Your task to perform on an android device: Check my gmail inbox Image 0: 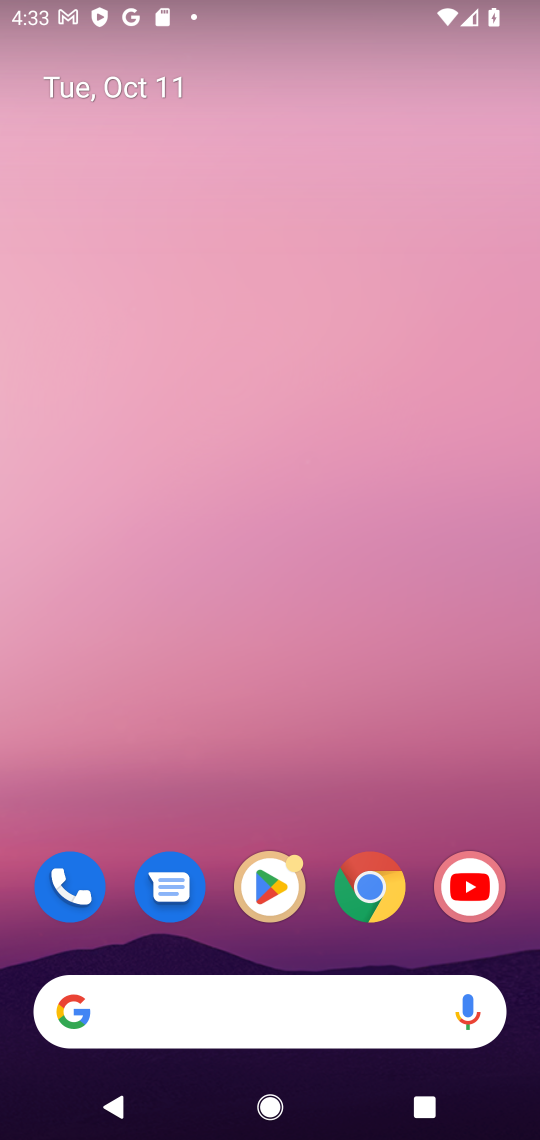
Step 0: drag from (351, 1095) to (351, 496)
Your task to perform on an android device: Check my gmail inbox Image 1: 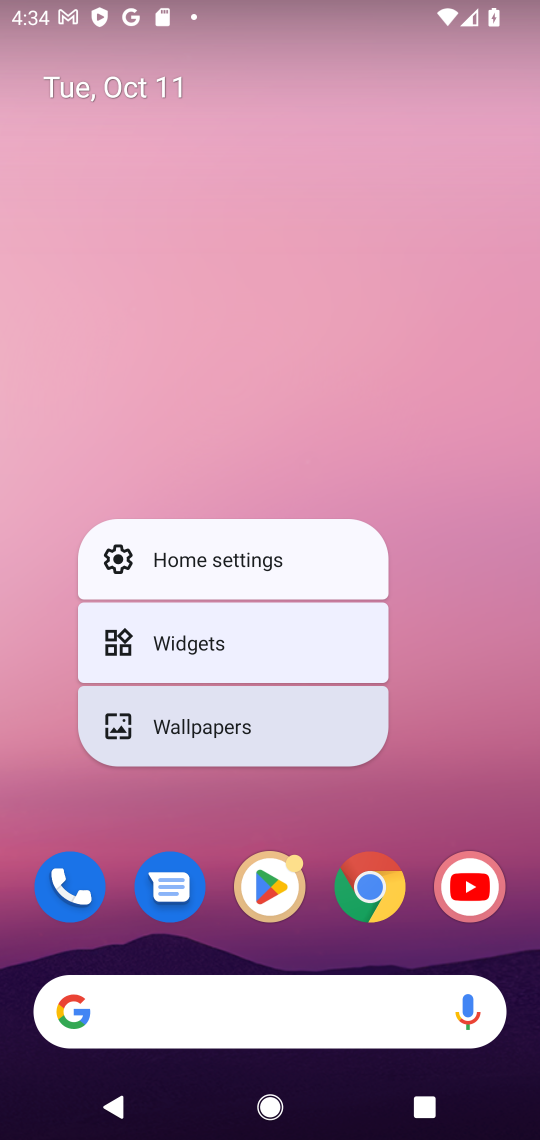
Step 1: click (408, 765)
Your task to perform on an android device: Check my gmail inbox Image 2: 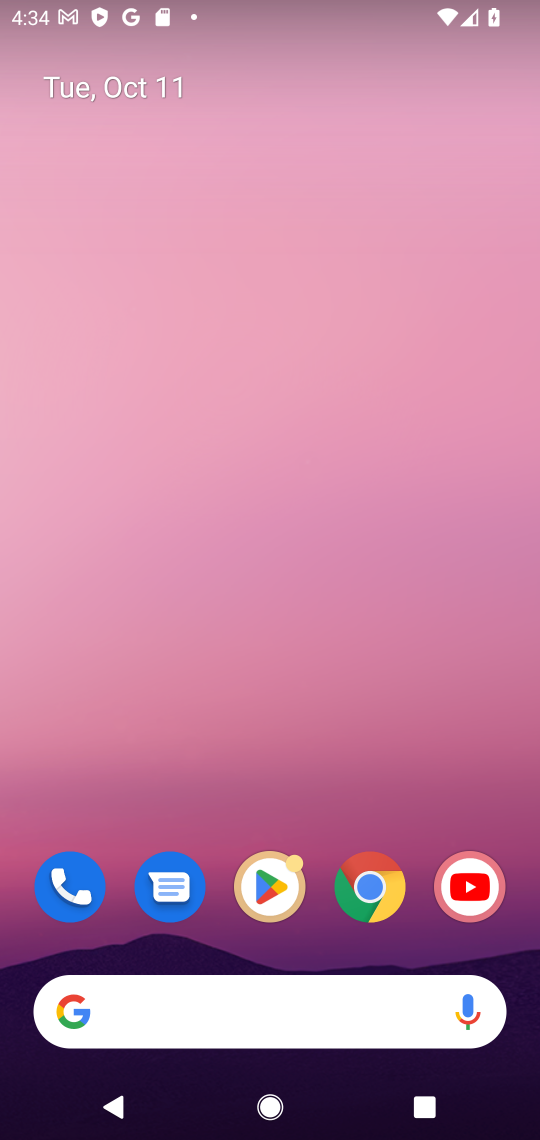
Step 2: drag from (333, 1079) to (311, 139)
Your task to perform on an android device: Check my gmail inbox Image 3: 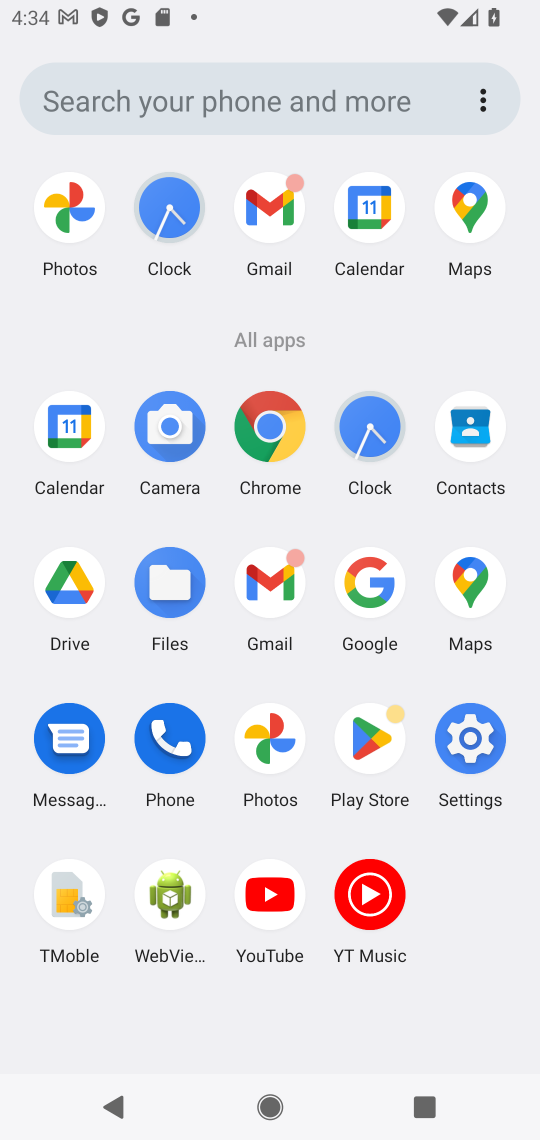
Step 3: click (272, 580)
Your task to perform on an android device: Check my gmail inbox Image 4: 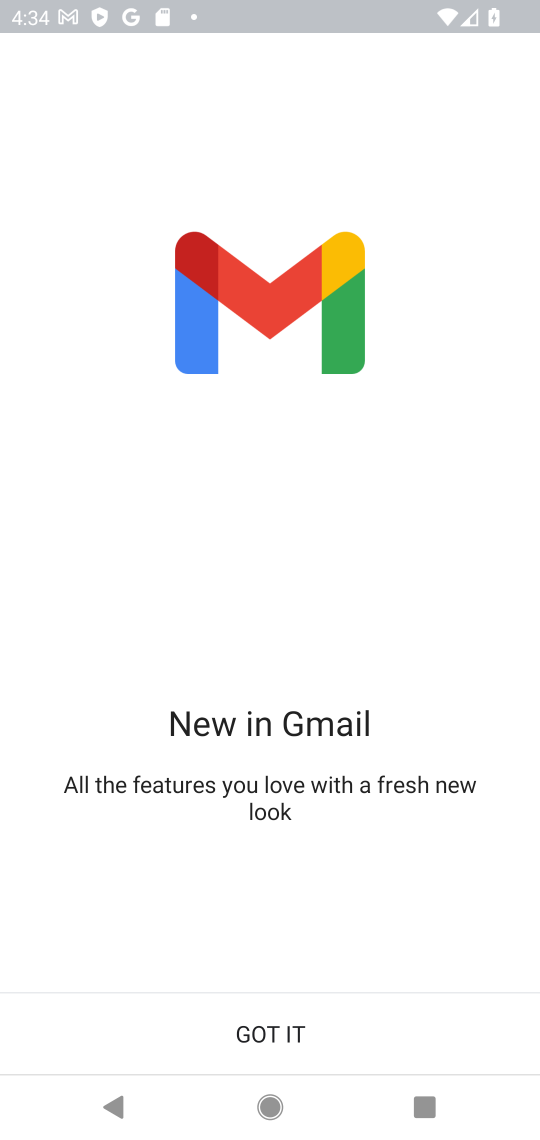
Step 4: click (306, 1025)
Your task to perform on an android device: Check my gmail inbox Image 5: 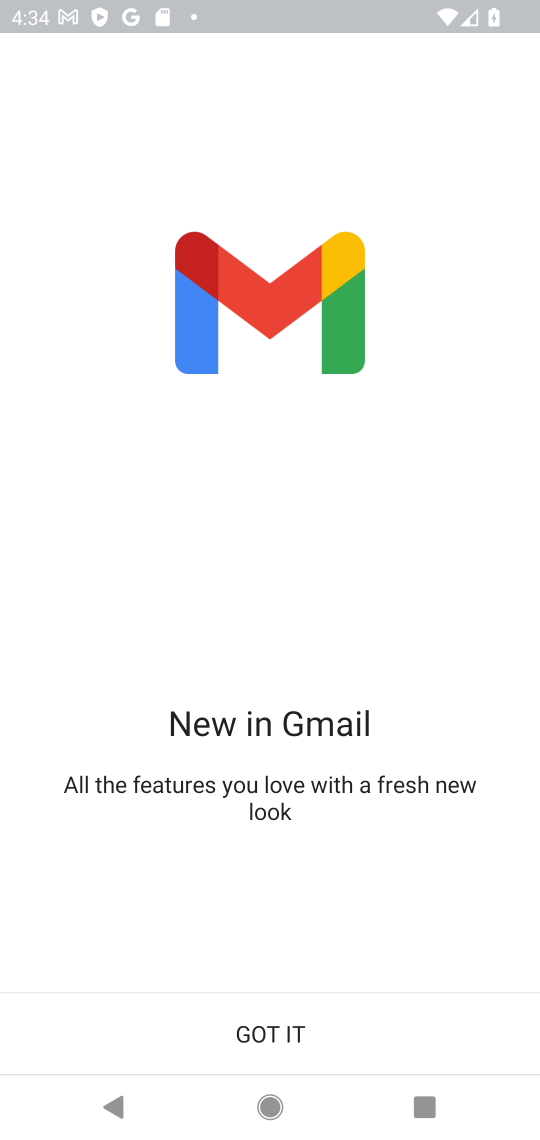
Step 5: click (306, 1025)
Your task to perform on an android device: Check my gmail inbox Image 6: 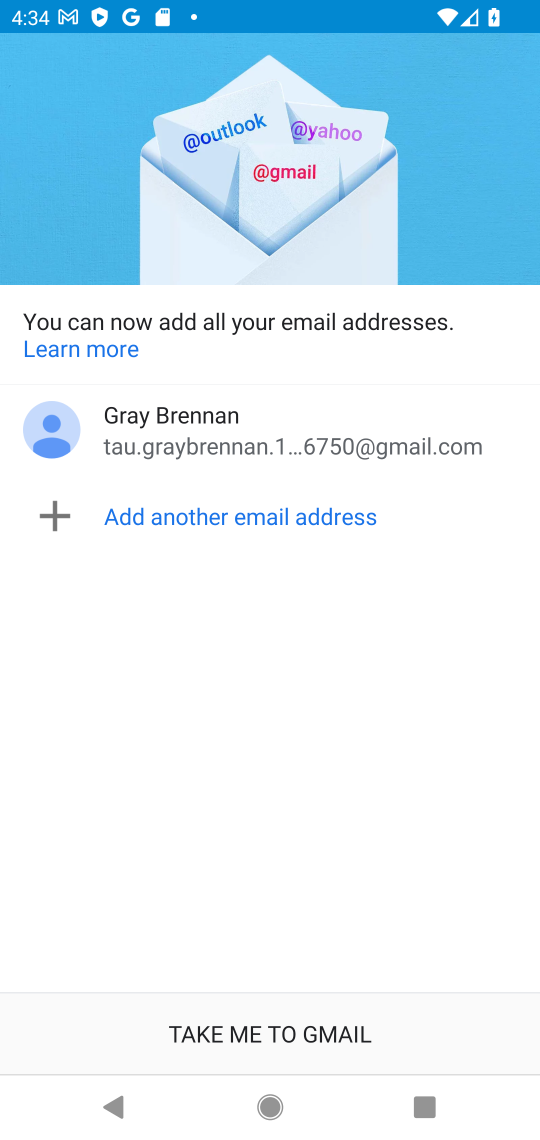
Step 6: click (301, 1030)
Your task to perform on an android device: Check my gmail inbox Image 7: 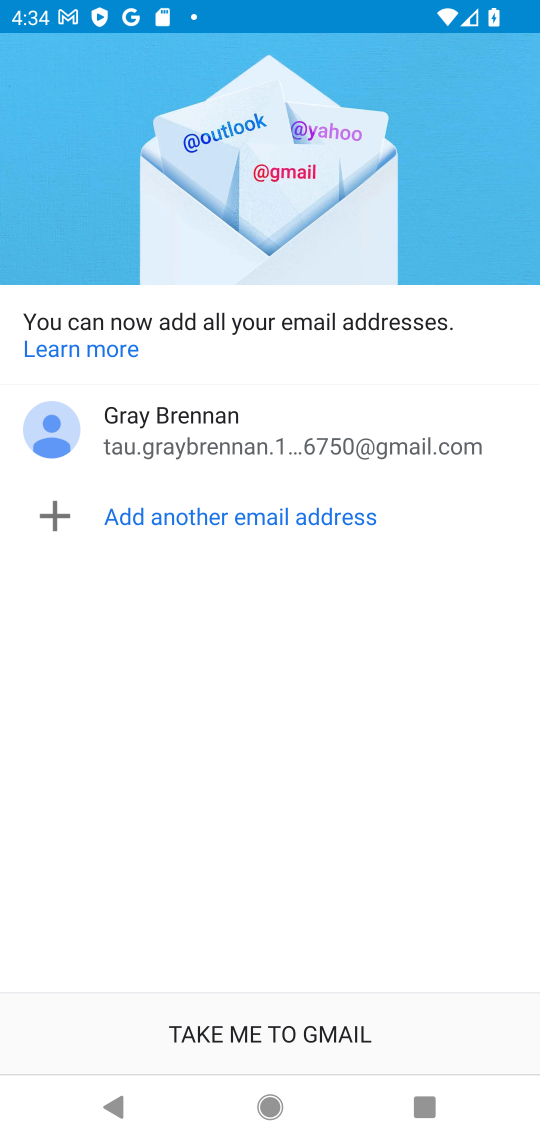
Step 7: click (301, 1030)
Your task to perform on an android device: Check my gmail inbox Image 8: 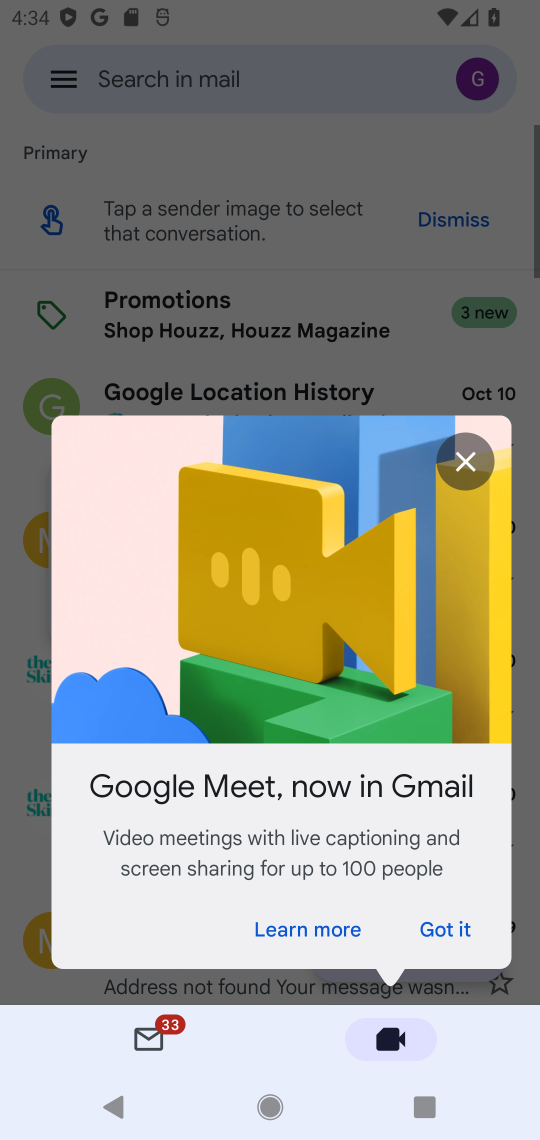
Step 8: click (452, 931)
Your task to perform on an android device: Check my gmail inbox Image 9: 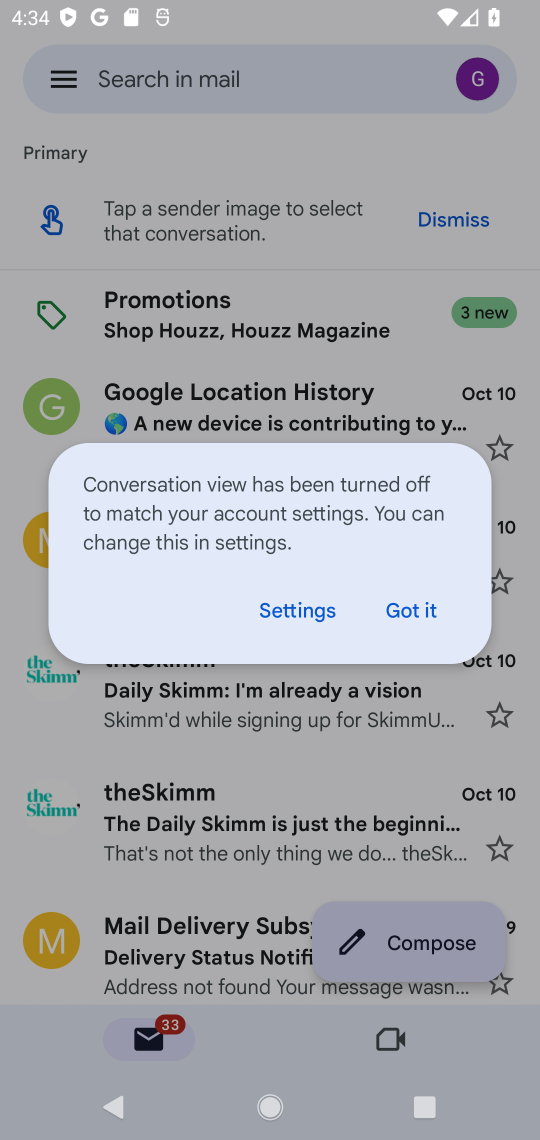
Step 9: drag from (407, 851) to (407, 790)
Your task to perform on an android device: Check my gmail inbox Image 10: 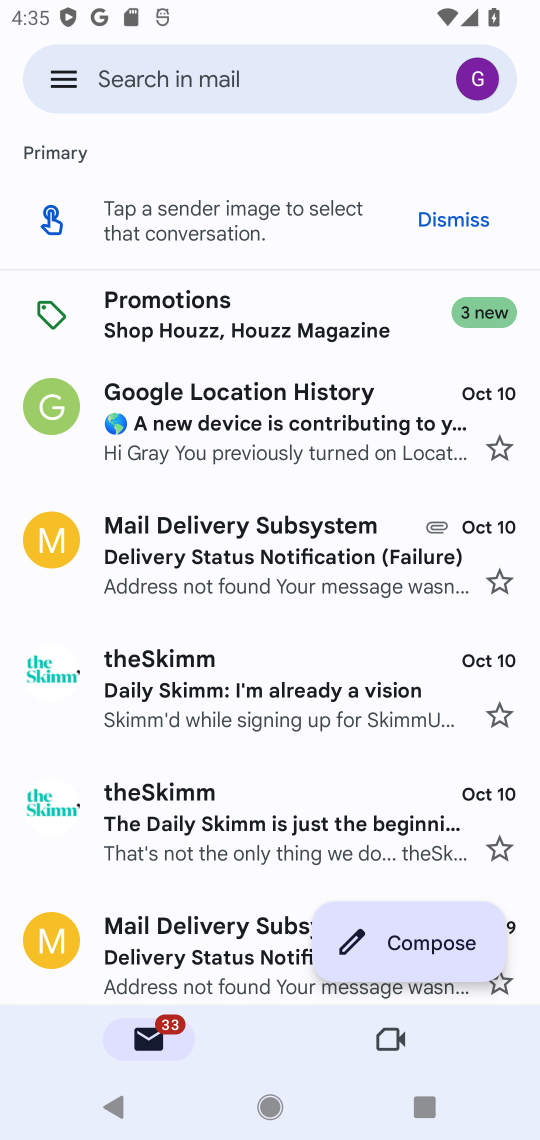
Step 10: click (438, 615)
Your task to perform on an android device: Check my gmail inbox Image 11: 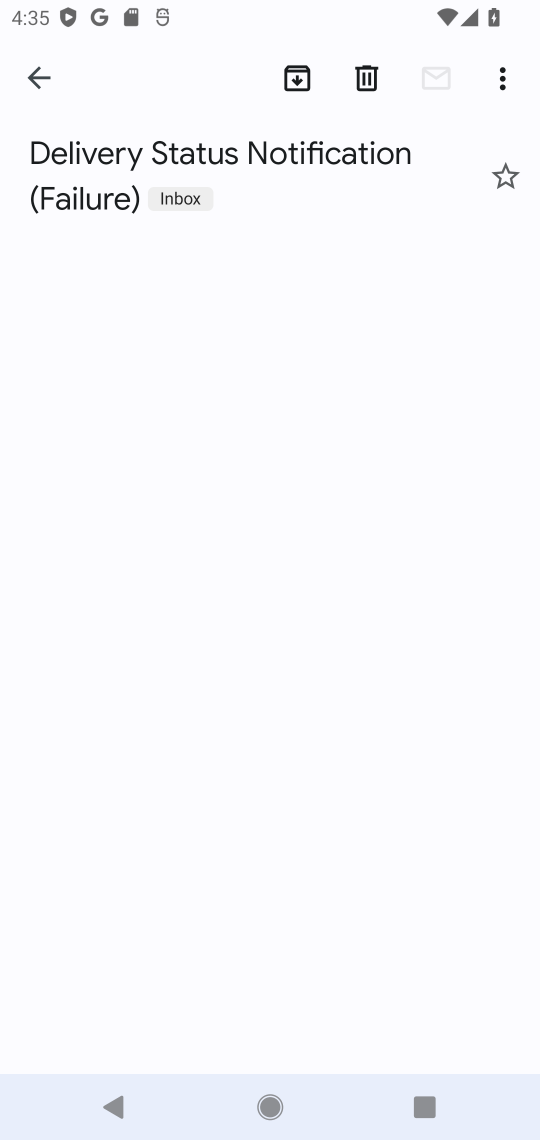
Step 11: drag from (301, 800) to (319, 561)
Your task to perform on an android device: Check my gmail inbox Image 12: 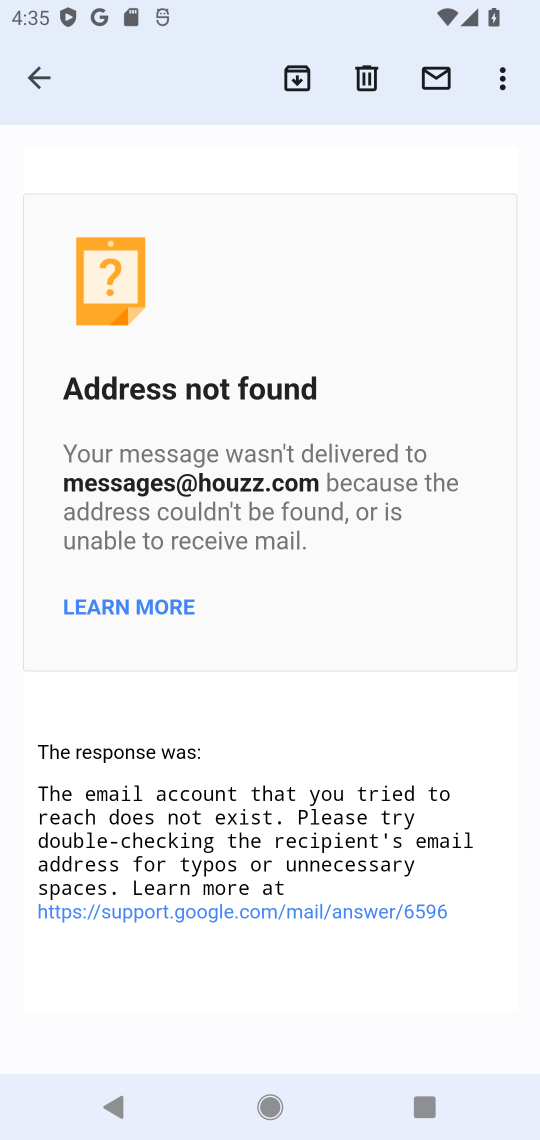
Step 12: drag from (358, 660) to (358, 598)
Your task to perform on an android device: Check my gmail inbox Image 13: 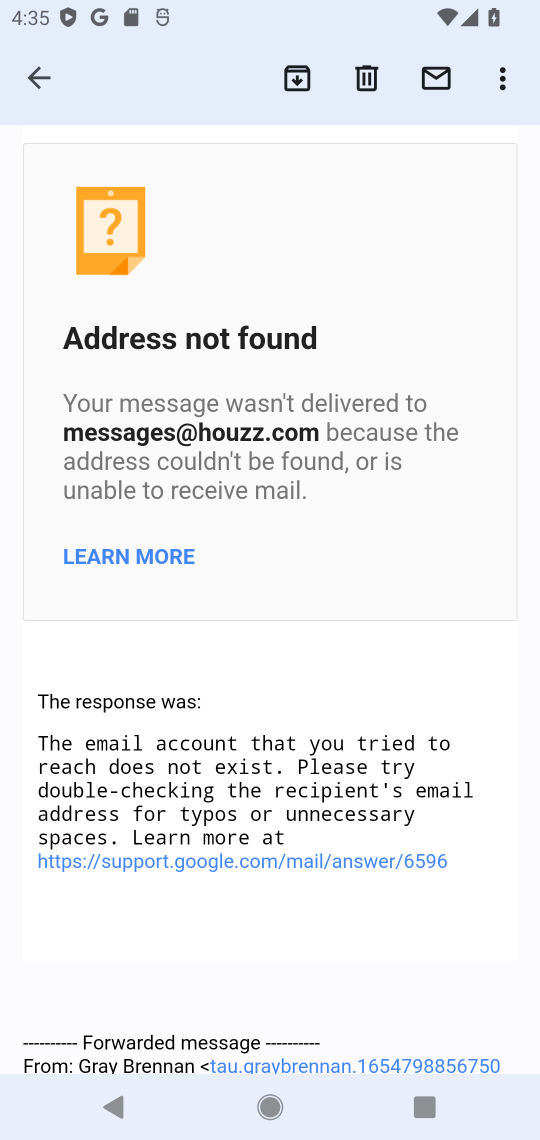
Step 13: click (41, 89)
Your task to perform on an android device: Check my gmail inbox Image 14: 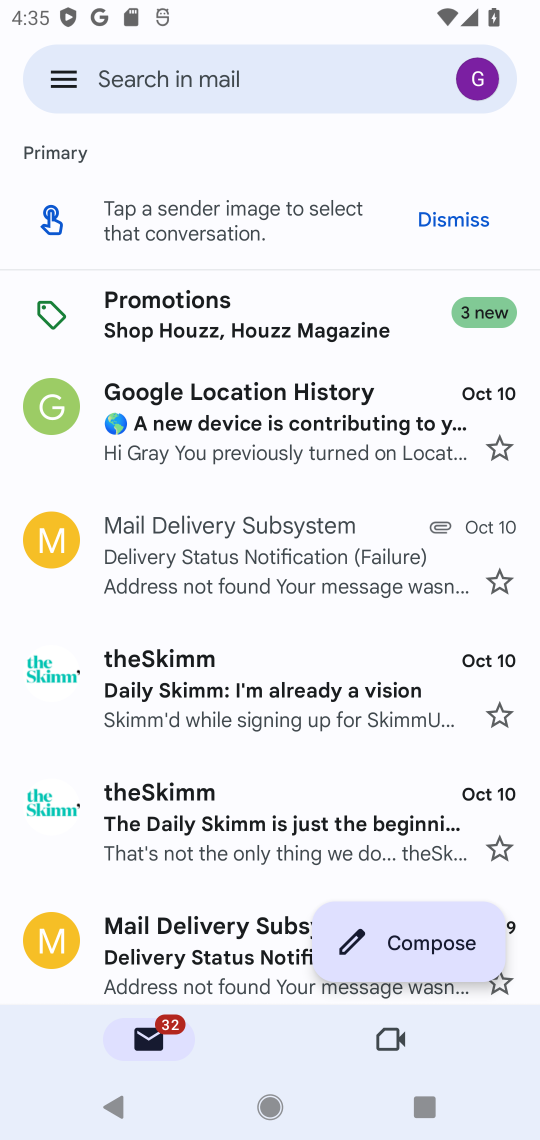
Step 14: task complete